Your task to perform on an android device: Go to Amazon Image 0: 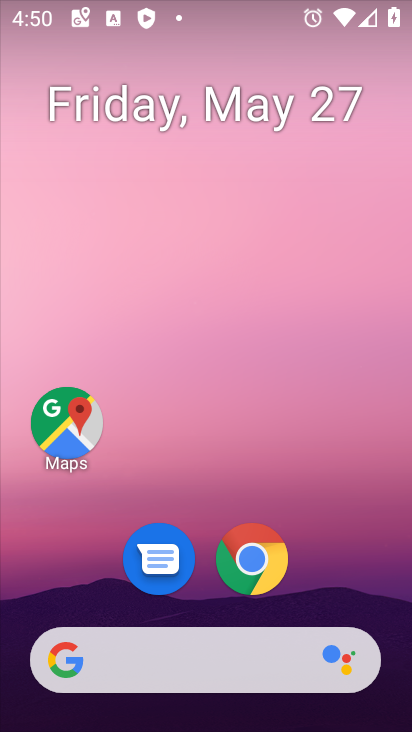
Step 0: drag from (132, 659) to (298, 3)
Your task to perform on an android device: Go to Amazon Image 1: 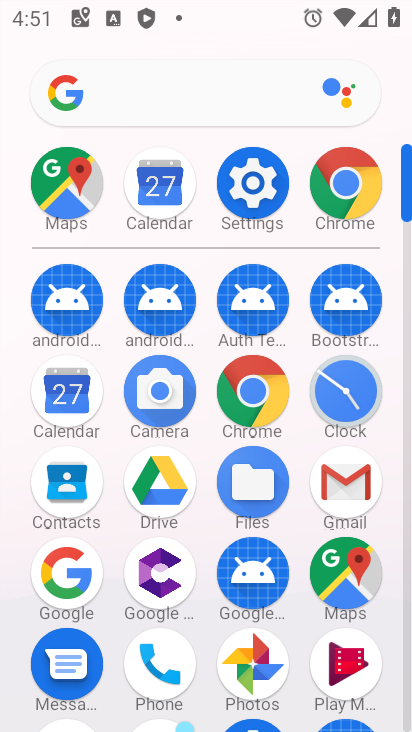
Step 1: click (259, 380)
Your task to perform on an android device: Go to Amazon Image 2: 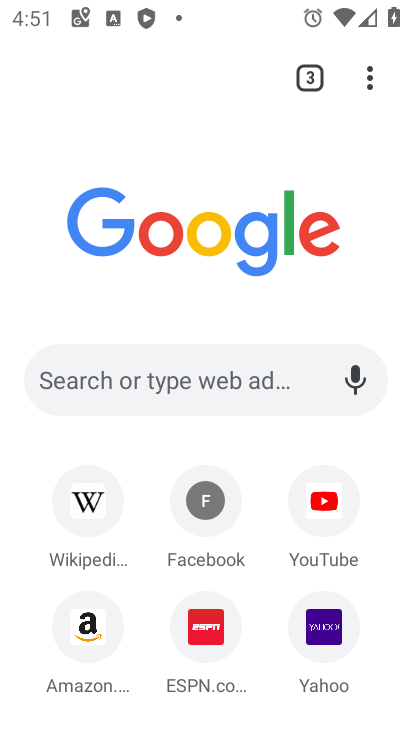
Step 2: click (71, 629)
Your task to perform on an android device: Go to Amazon Image 3: 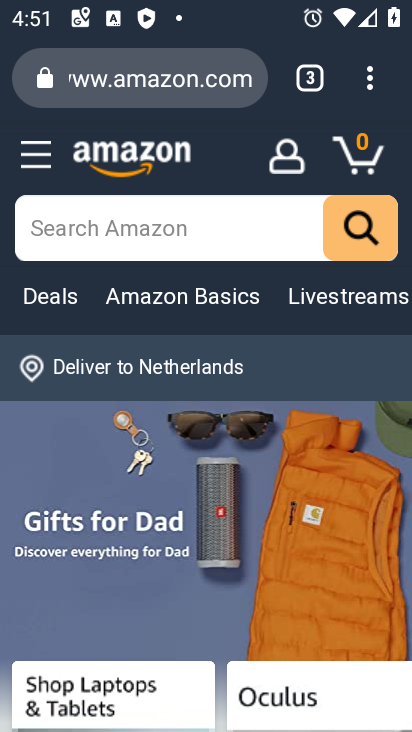
Step 3: task complete